Your task to perform on an android device: Open the stopwatch Image 0: 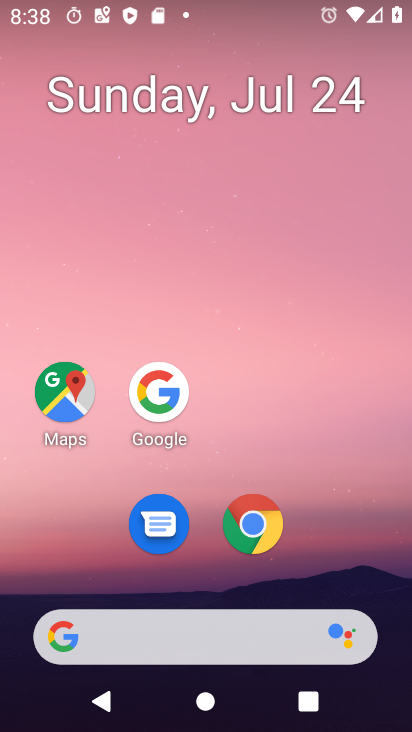
Step 0: drag from (173, 612) to (259, 162)
Your task to perform on an android device: Open the stopwatch Image 1: 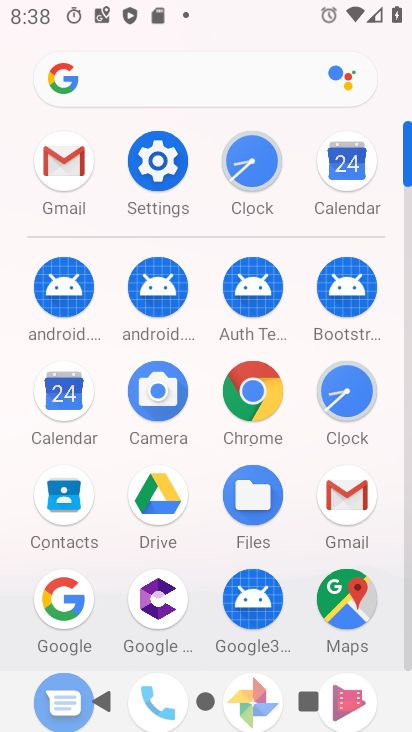
Step 1: click (244, 168)
Your task to perform on an android device: Open the stopwatch Image 2: 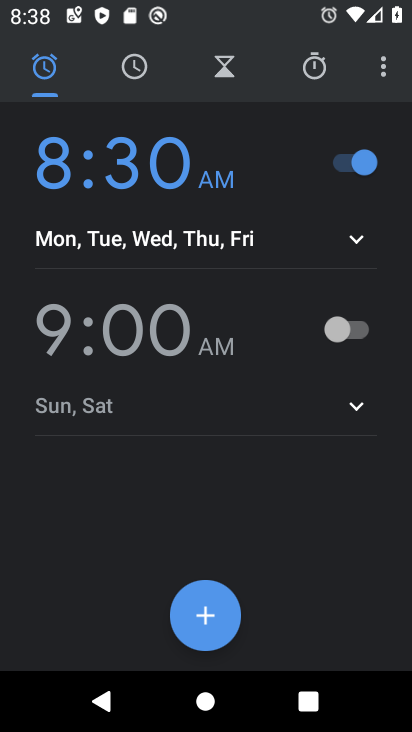
Step 2: click (323, 77)
Your task to perform on an android device: Open the stopwatch Image 3: 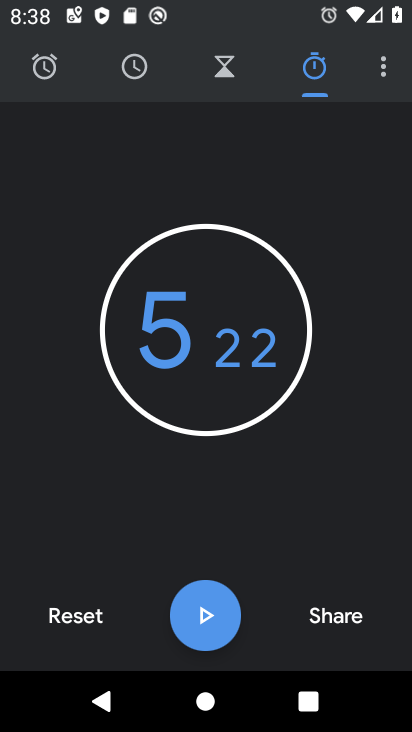
Step 3: task complete